Your task to perform on an android device: What's the weather? Image 0: 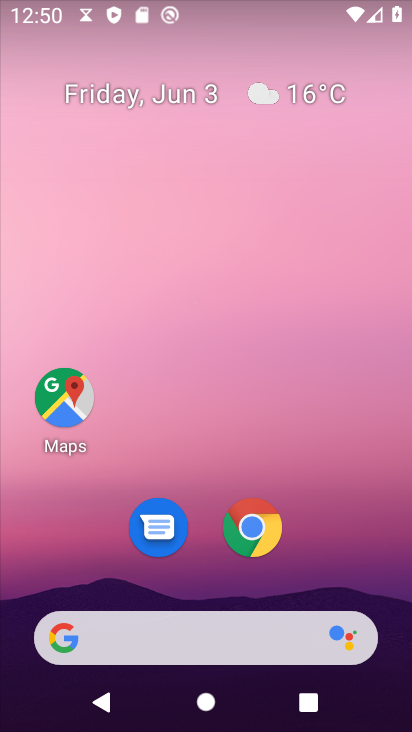
Step 0: click (206, 645)
Your task to perform on an android device: What's the weather? Image 1: 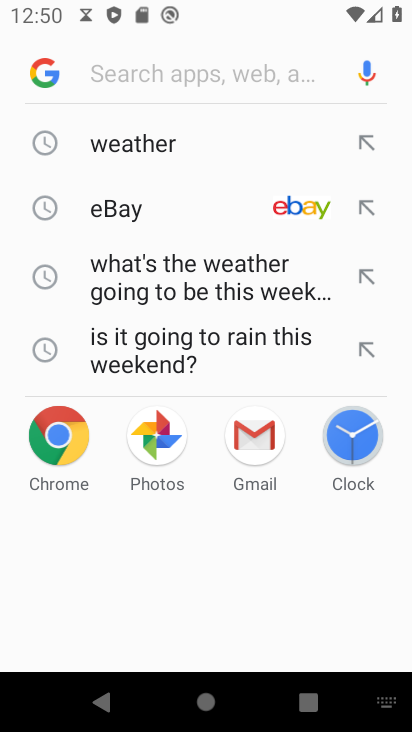
Step 1: click (170, 153)
Your task to perform on an android device: What's the weather? Image 2: 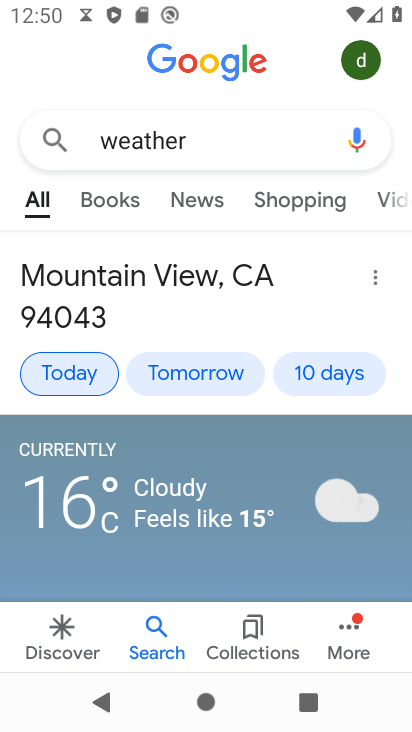
Step 2: task complete